Your task to perform on an android device: What's on my calendar today? Image 0: 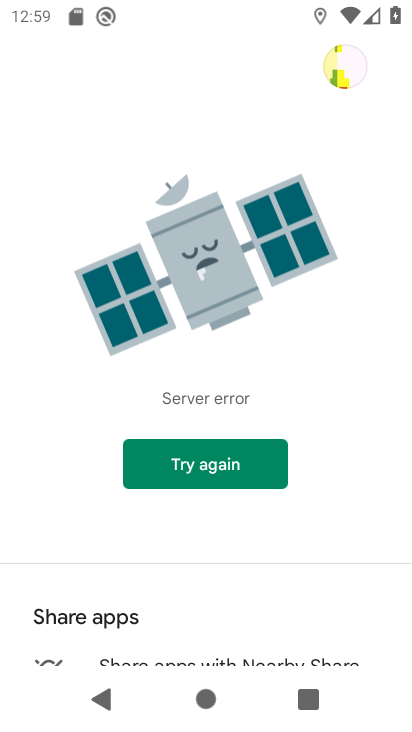
Step 0: press home button
Your task to perform on an android device: What's on my calendar today? Image 1: 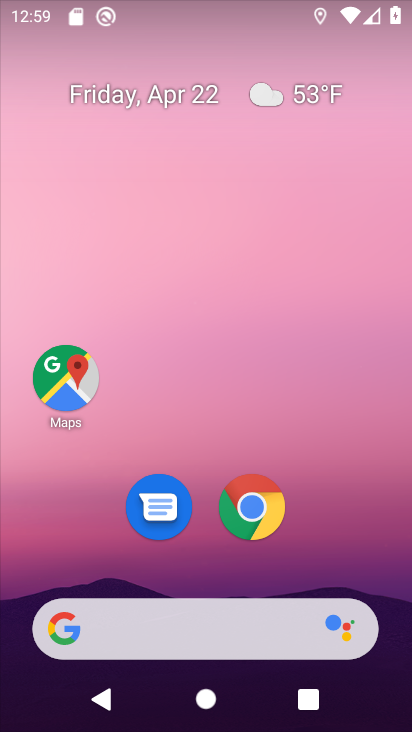
Step 1: drag from (315, 545) to (295, 28)
Your task to perform on an android device: What's on my calendar today? Image 2: 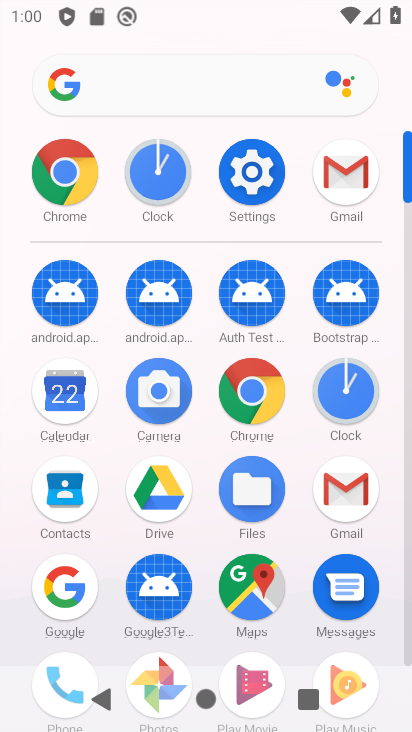
Step 2: drag from (195, 601) to (189, 413)
Your task to perform on an android device: What's on my calendar today? Image 3: 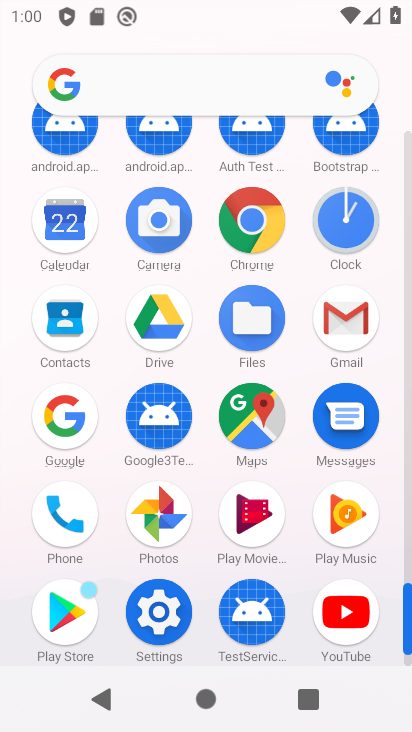
Step 3: click (60, 239)
Your task to perform on an android device: What's on my calendar today? Image 4: 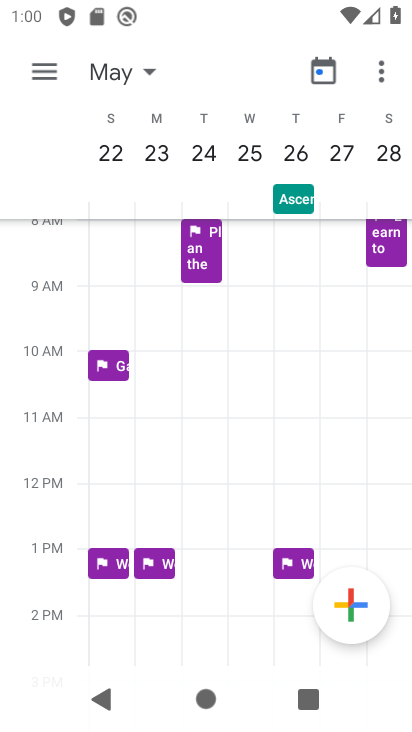
Step 4: click (127, 78)
Your task to perform on an android device: What's on my calendar today? Image 5: 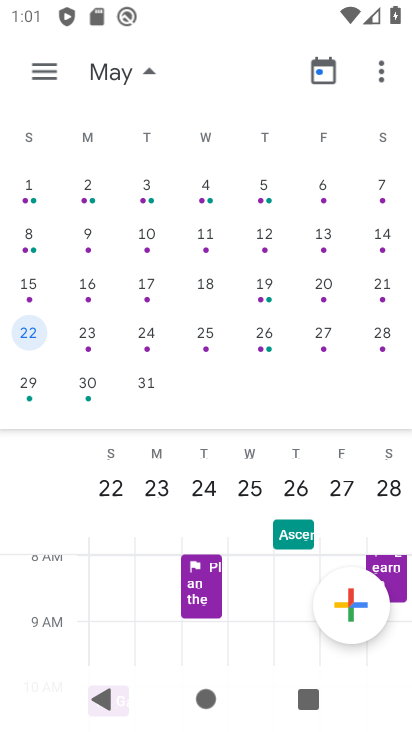
Step 5: click (28, 335)
Your task to perform on an android device: What's on my calendar today? Image 6: 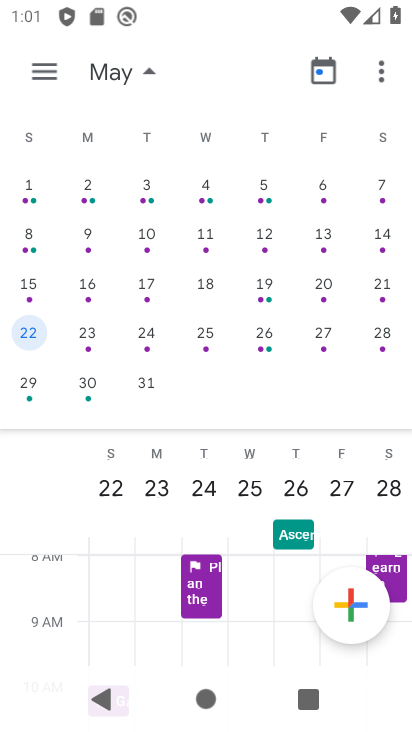
Step 6: click (28, 334)
Your task to perform on an android device: What's on my calendar today? Image 7: 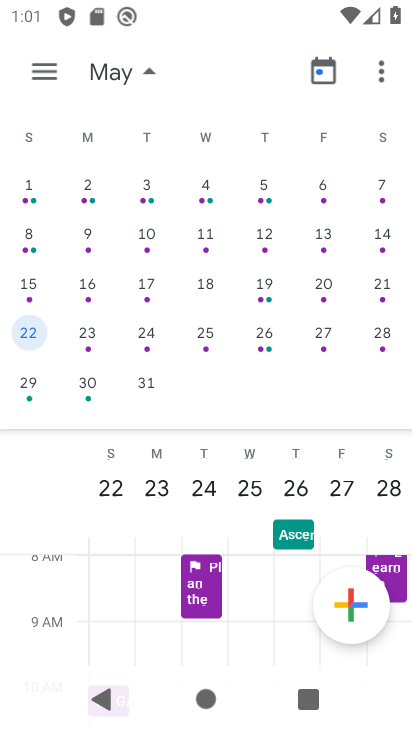
Step 7: click (44, 72)
Your task to perform on an android device: What's on my calendar today? Image 8: 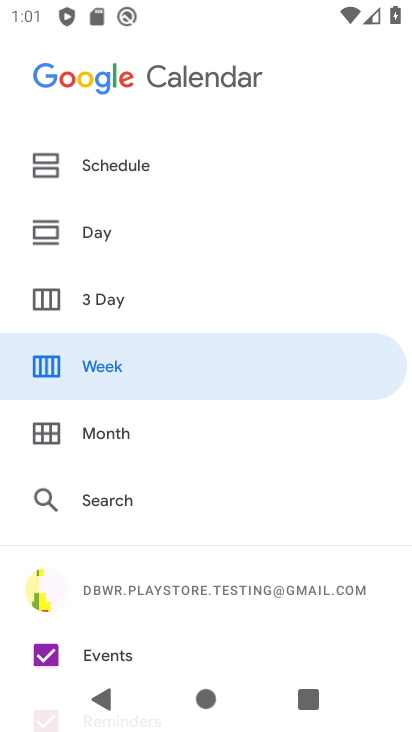
Step 8: click (111, 166)
Your task to perform on an android device: What's on my calendar today? Image 9: 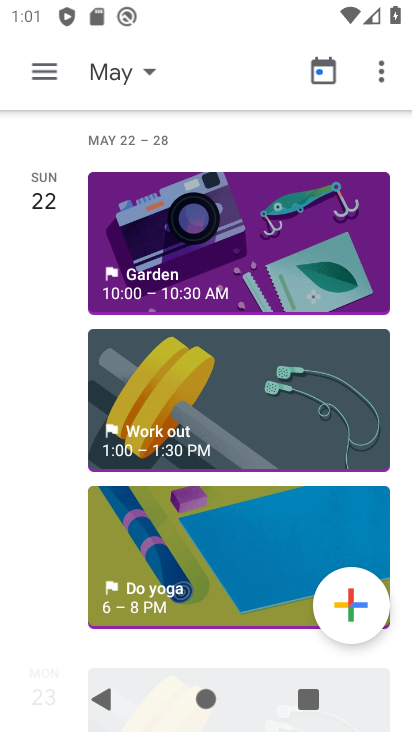
Step 9: click (137, 73)
Your task to perform on an android device: What's on my calendar today? Image 10: 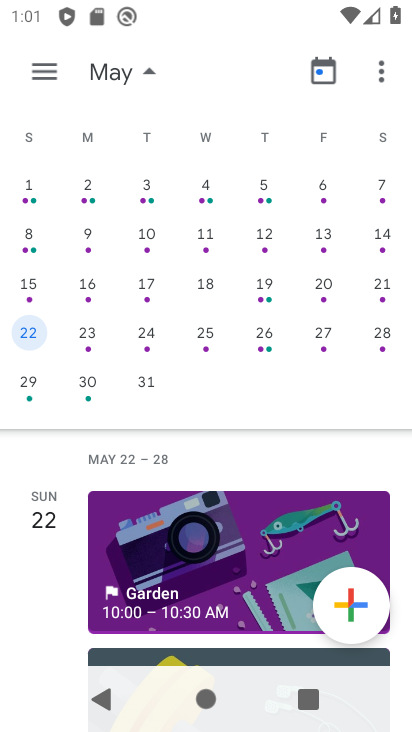
Step 10: drag from (61, 298) to (388, 324)
Your task to perform on an android device: What's on my calendar today? Image 11: 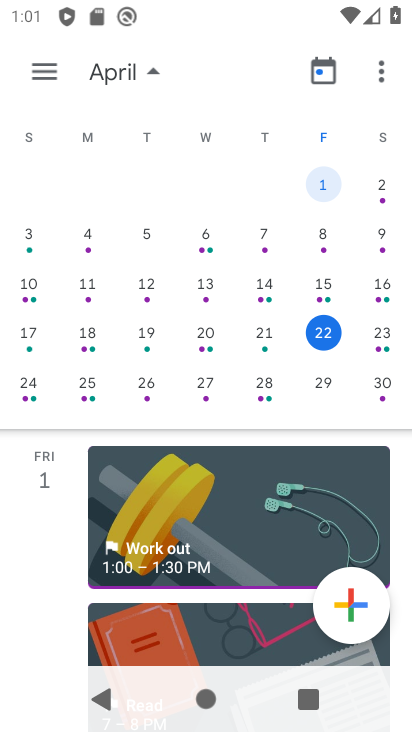
Step 11: click (327, 333)
Your task to perform on an android device: What's on my calendar today? Image 12: 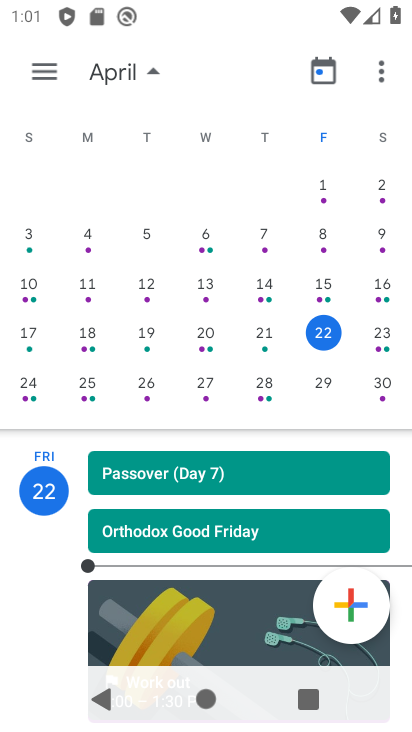
Step 12: click (53, 74)
Your task to perform on an android device: What's on my calendar today? Image 13: 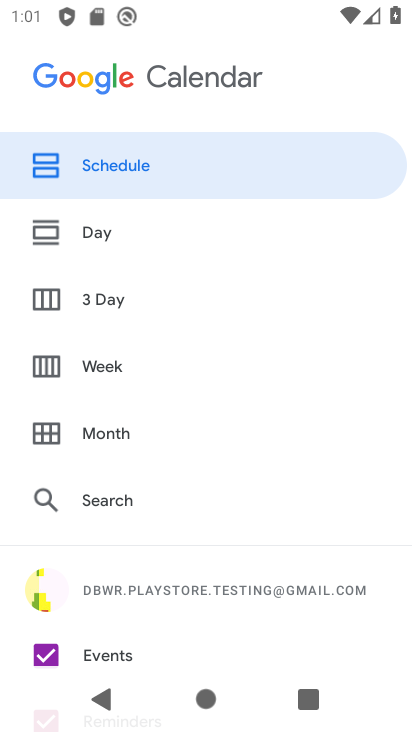
Step 13: click (120, 171)
Your task to perform on an android device: What's on my calendar today? Image 14: 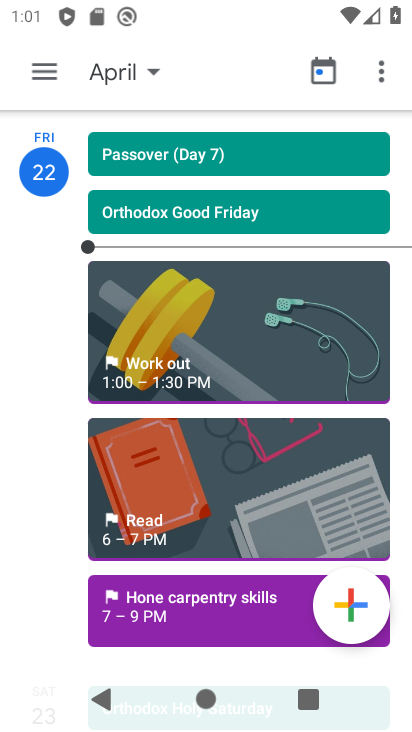
Step 14: task complete